Your task to perform on an android device: open wifi settings Image 0: 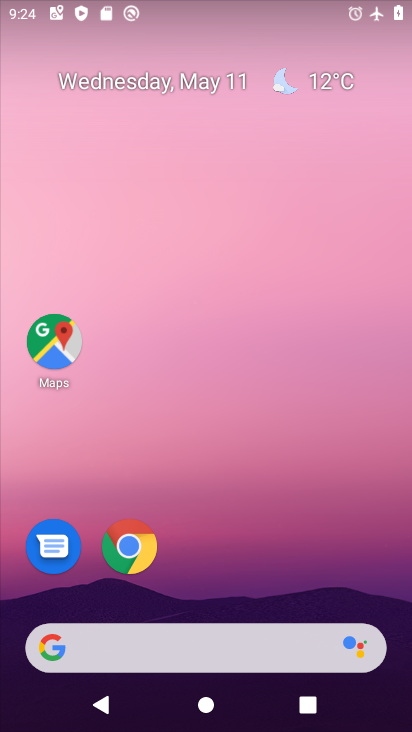
Step 0: drag from (400, 631) to (279, 163)
Your task to perform on an android device: open wifi settings Image 1: 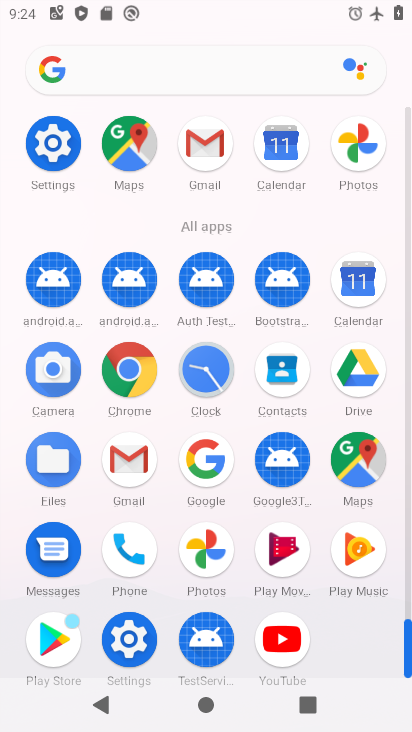
Step 1: click (130, 640)
Your task to perform on an android device: open wifi settings Image 2: 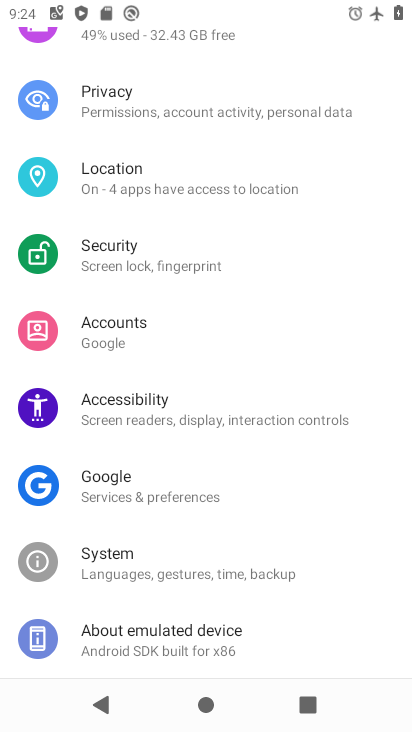
Step 2: drag from (353, 181) to (378, 505)
Your task to perform on an android device: open wifi settings Image 3: 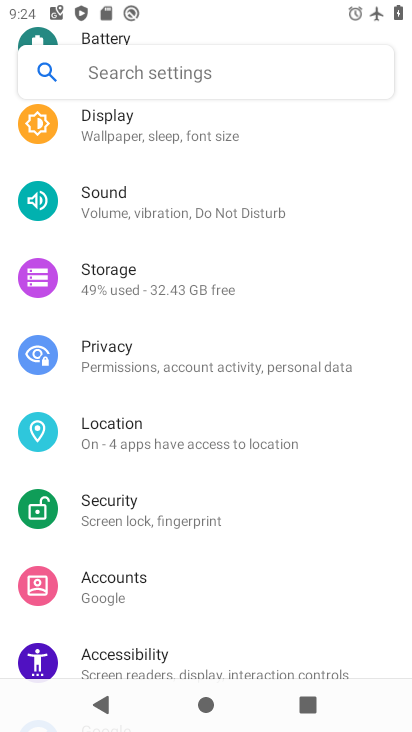
Step 3: drag from (326, 130) to (375, 420)
Your task to perform on an android device: open wifi settings Image 4: 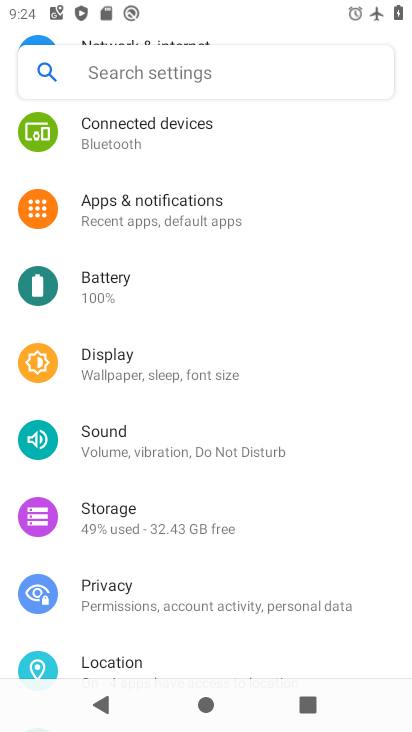
Step 4: drag from (343, 144) to (361, 483)
Your task to perform on an android device: open wifi settings Image 5: 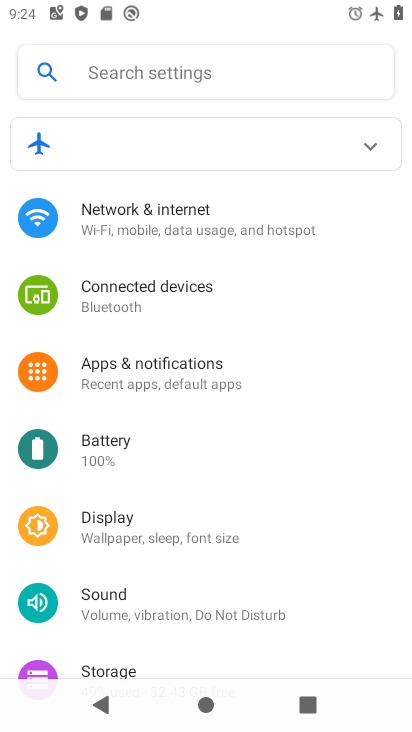
Step 5: click (114, 209)
Your task to perform on an android device: open wifi settings Image 6: 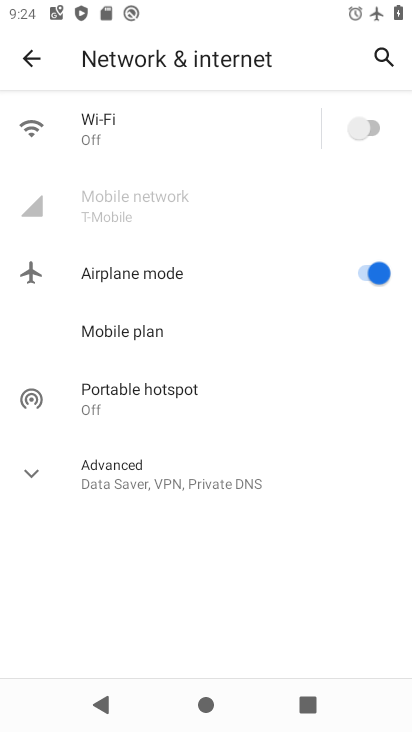
Step 6: click (87, 119)
Your task to perform on an android device: open wifi settings Image 7: 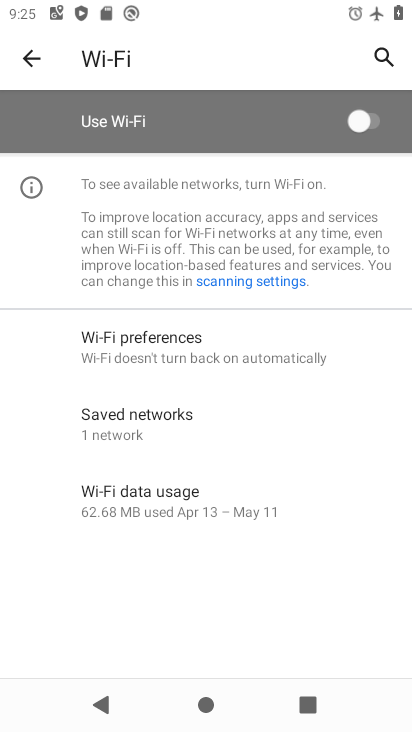
Step 7: task complete